Your task to perform on an android device: Search for the best movies of 2019  Image 0: 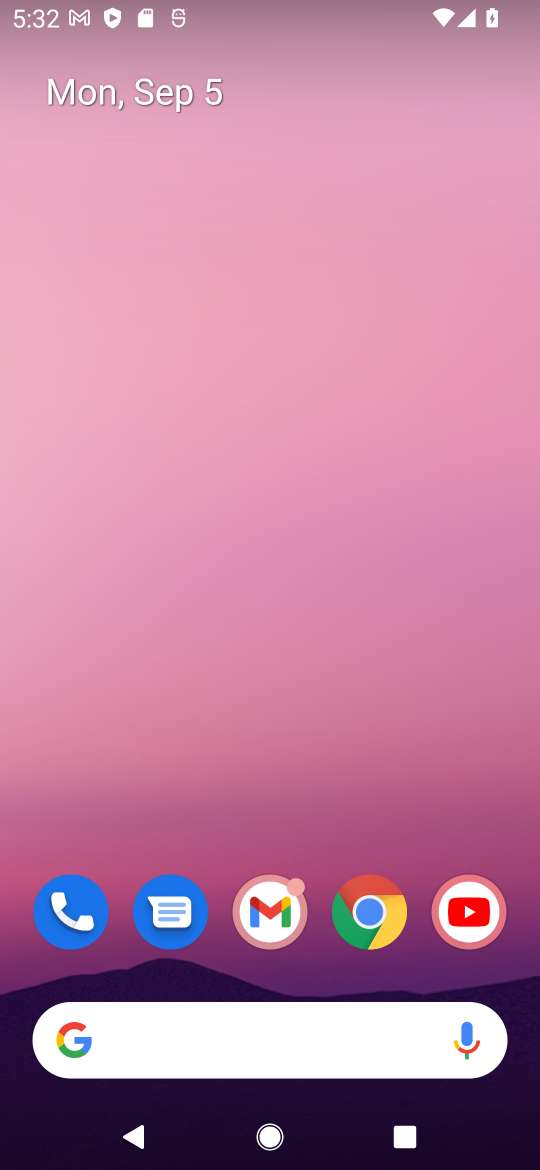
Step 0: click (372, 909)
Your task to perform on an android device: Search for the best movies of 2019  Image 1: 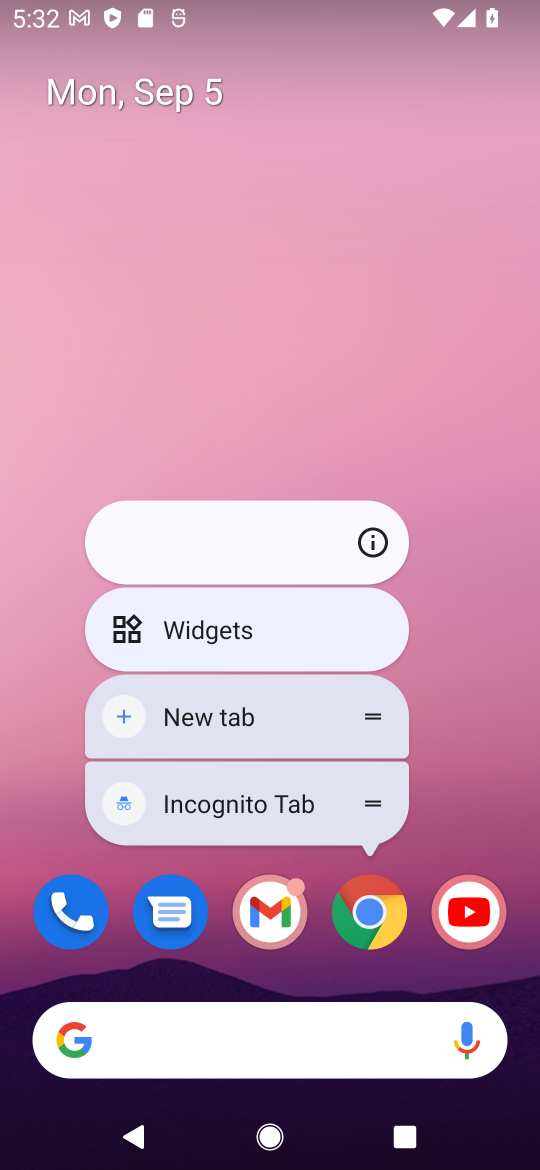
Step 1: click (374, 931)
Your task to perform on an android device: Search for the best movies of 2019  Image 2: 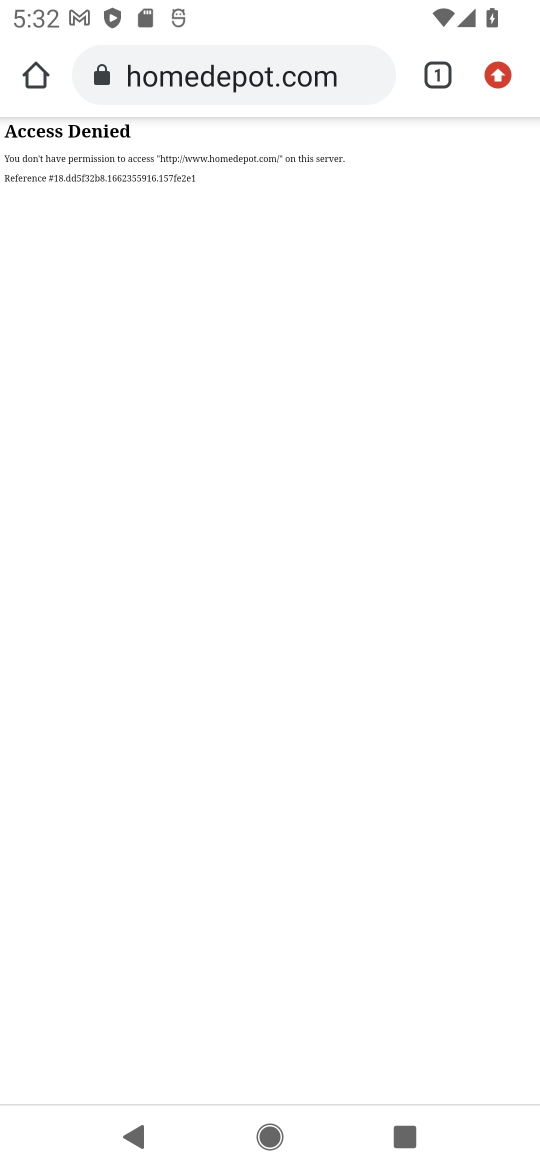
Step 2: task complete